Your task to perform on an android device: Open maps Image 0: 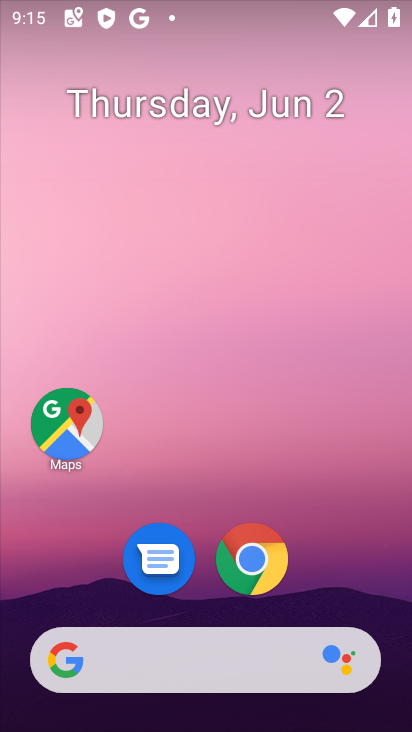
Step 0: click (67, 438)
Your task to perform on an android device: Open maps Image 1: 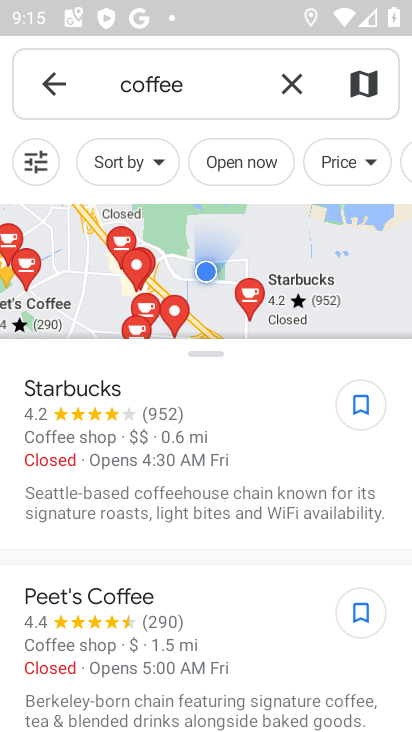
Step 1: task complete